Your task to perform on an android device: toggle show notifications on the lock screen Image 0: 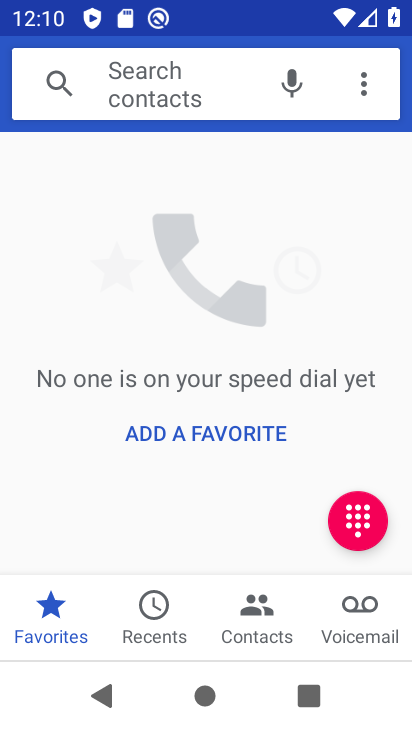
Step 0: press back button
Your task to perform on an android device: toggle show notifications on the lock screen Image 1: 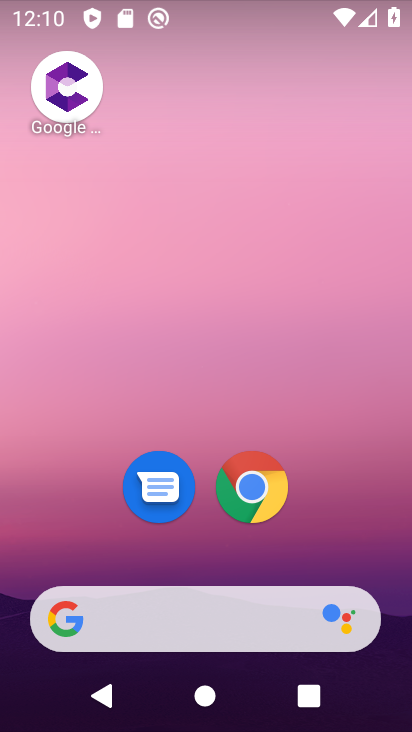
Step 1: drag from (345, 532) to (241, 6)
Your task to perform on an android device: toggle show notifications on the lock screen Image 2: 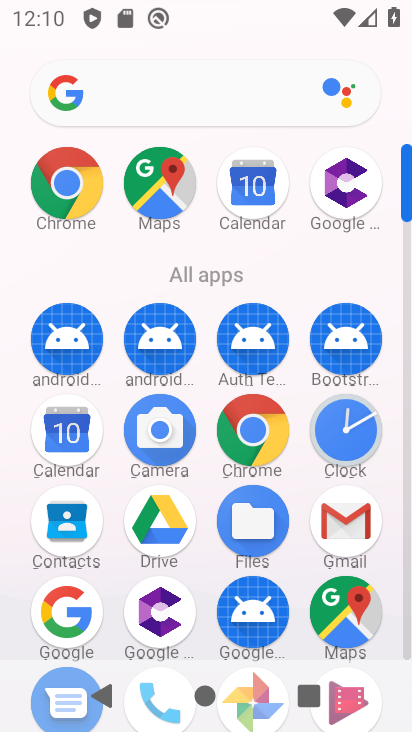
Step 2: drag from (9, 608) to (16, 303)
Your task to perform on an android device: toggle show notifications on the lock screen Image 3: 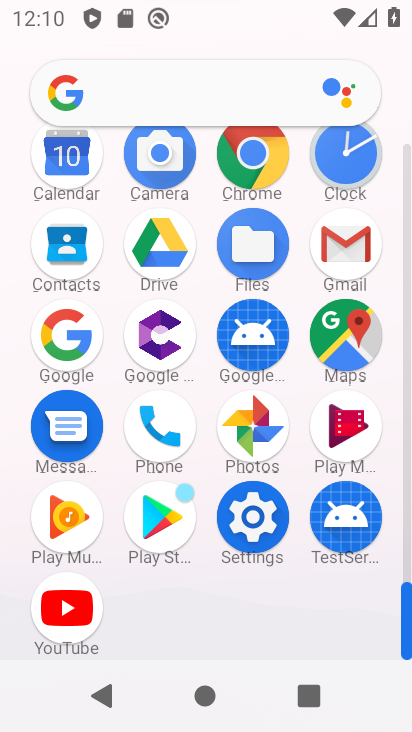
Step 3: click (256, 514)
Your task to perform on an android device: toggle show notifications on the lock screen Image 4: 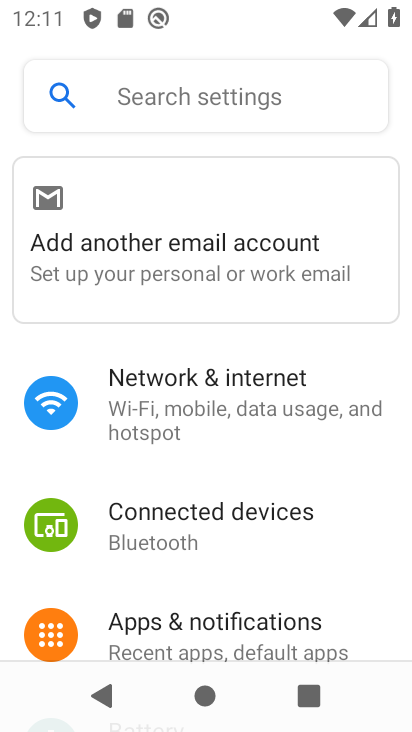
Step 4: drag from (325, 578) to (310, 211)
Your task to perform on an android device: toggle show notifications on the lock screen Image 5: 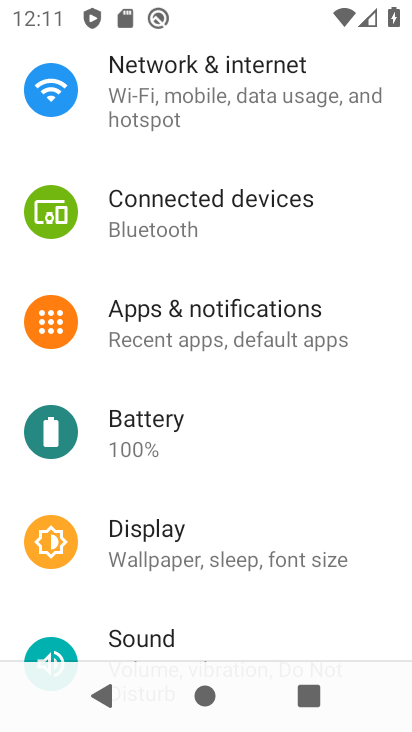
Step 5: click (214, 331)
Your task to perform on an android device: toggle show notifications on the lock screen Image 6: 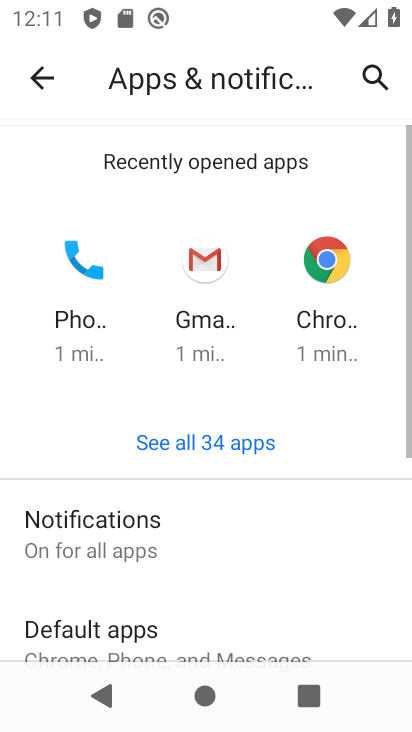
Step 6: click (167, 517)
Your task to perform on an android device: toggle show notifications on the lock screen Image 7: 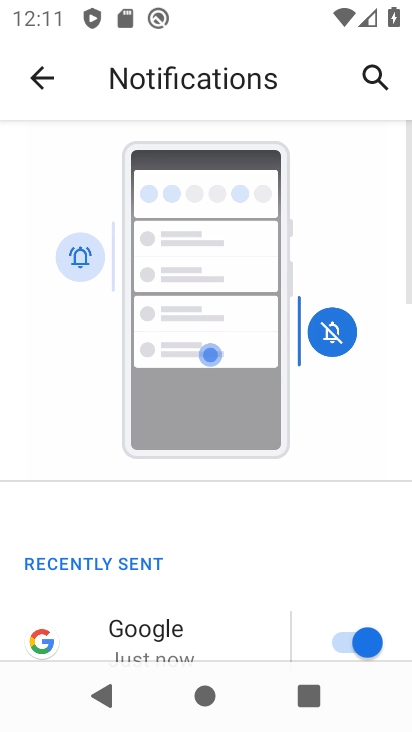
Step 7: drag from (229, 609) to (224, 128)
Your task to perform on an android device: toggle show notifications on the lock screen Image 8: 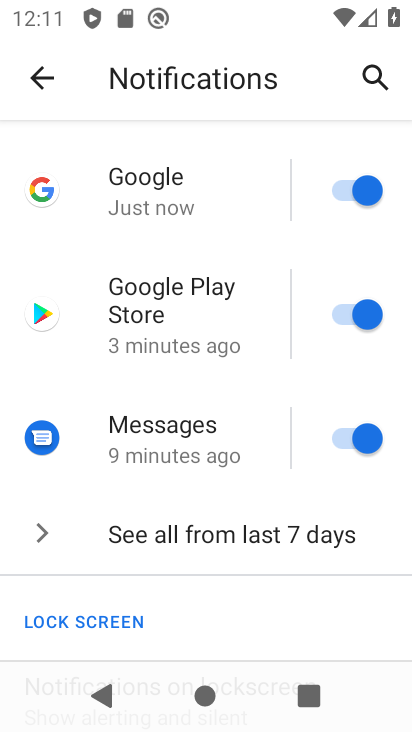
Step 8: drag from (183, 562) to (184, 185)
Your task to perform on an android device: toggle show notifications on the lock screen Image 9: 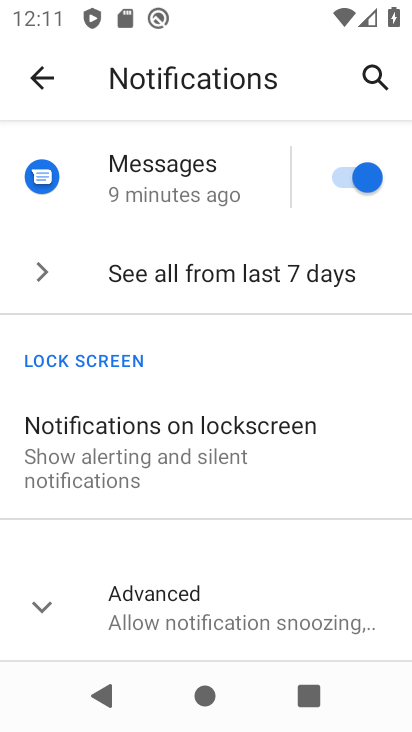
Step 9: click (27, 575)
Your task to perform on an android device: toggle show notifications on the lock screen Image 10: 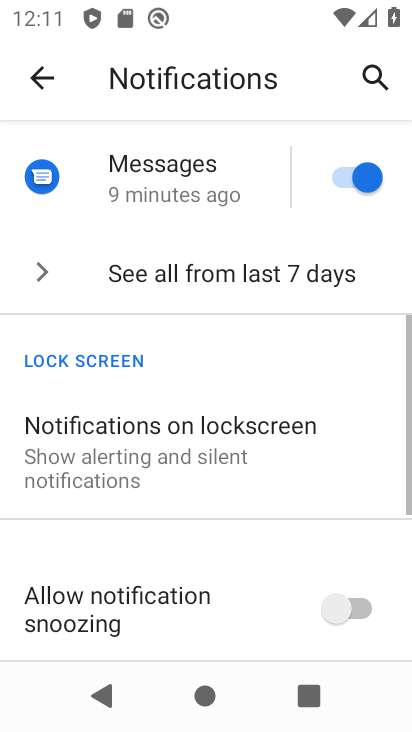
Step 10: drag from (218, 611) to (235, 219)
Your task to perform on an android device: toggle show notifications on the lock screen Image 11: 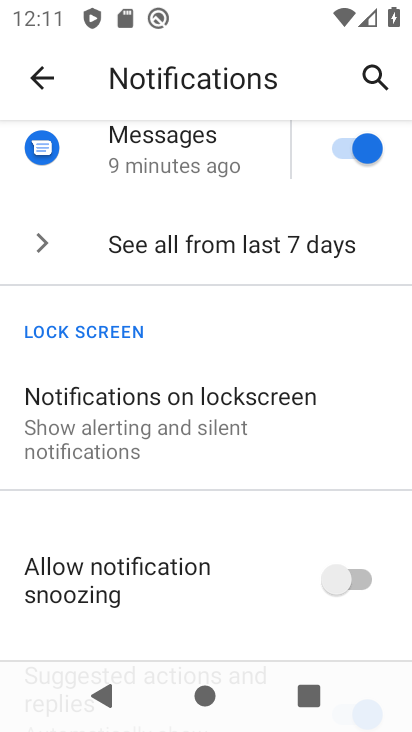
Step 11: drag from (241, 564) to (223, 213)
Your task to perform on an android device: toggle show notifications on the lock screen Image 12: 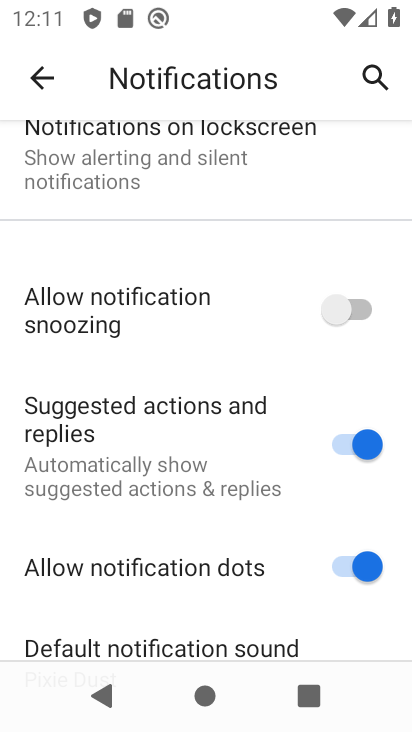
Step 12: click (217, 172)
Your task to perform on an android device: toggle show notifications on the lock screen Image 13: 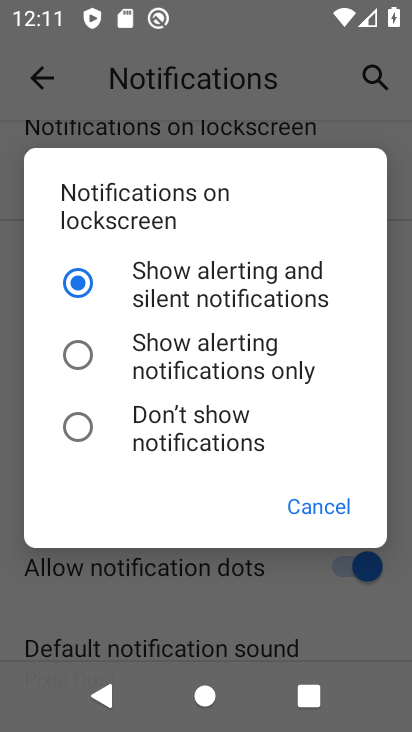
Step 13: click (179, 298)
Your task to perform on an android device: toggle show notifications on the lock screen Image 14: 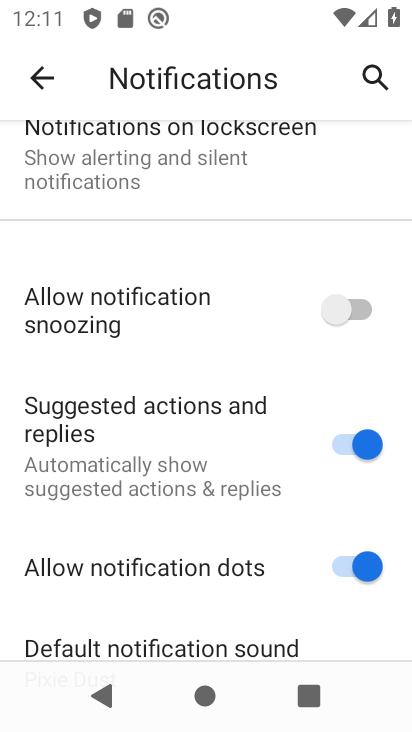
Step 14: task complete